Your task to perform on an android device: Go to calendar. Show me events next week Image 0: 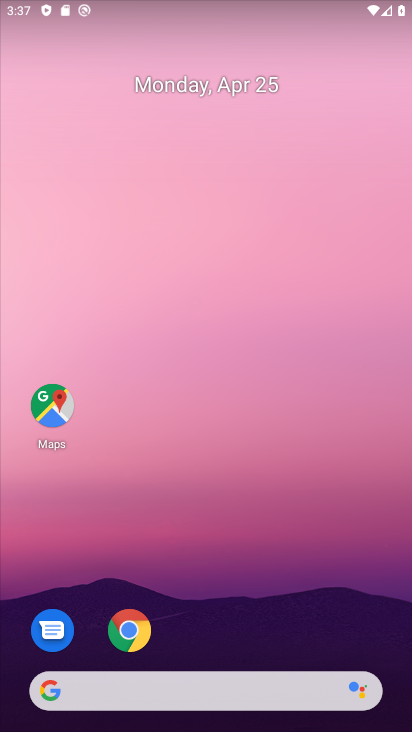
Step 0: drag from (345, 438) to (325, 91)
Your task to perform on an android device: Go to calendar. Show me events next week Image 1: 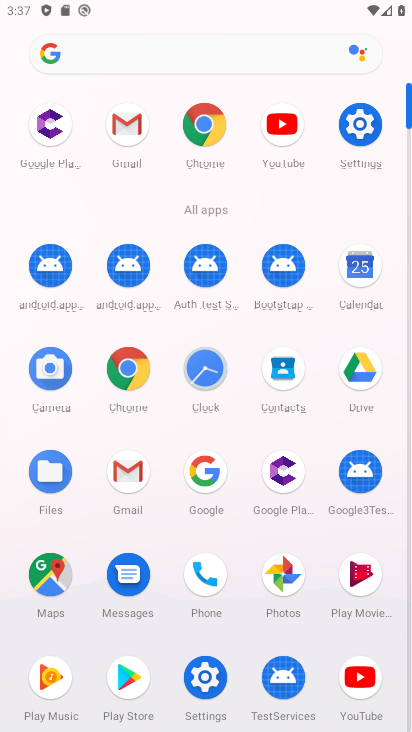
Step 1: click (356, 274)
Your task to perform on an android device: Go to calendar. Show me events next week Image 2: 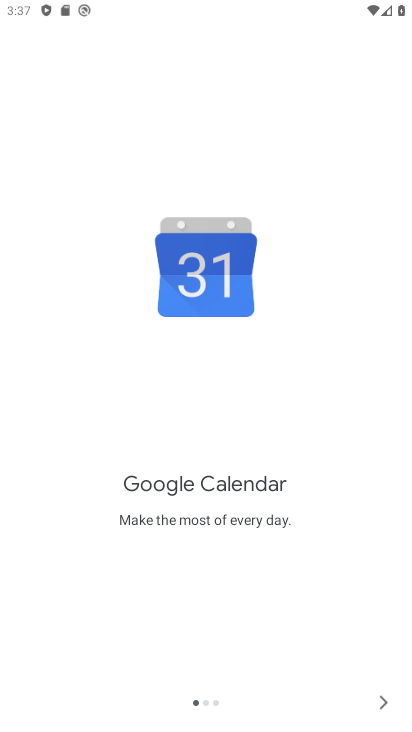
Step 2: click (381, 708)
Your task to perform on an android device: Go to calendar. Show me events next week Image 3: 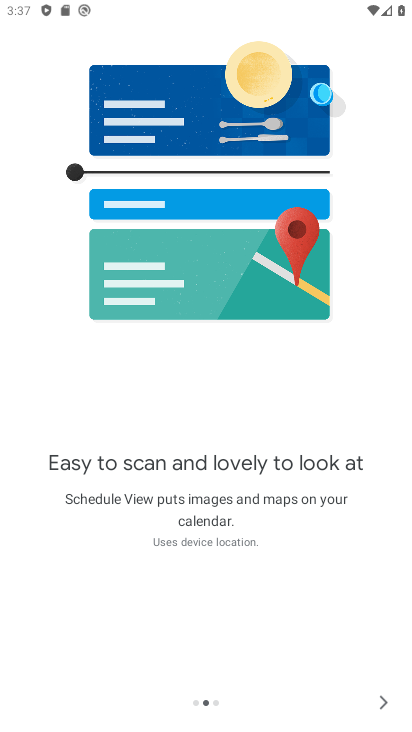
Step 3: click (374, 706)
Your task to perform on an android device: Go to calendar. Show me events next week Image 4: 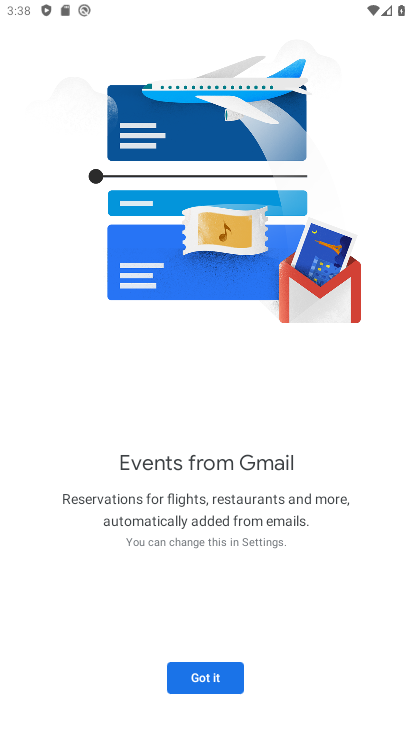
Step 4: click (209, 667)
Your task to perform on an android device: Go to calendar. Show me events next week Image 5: 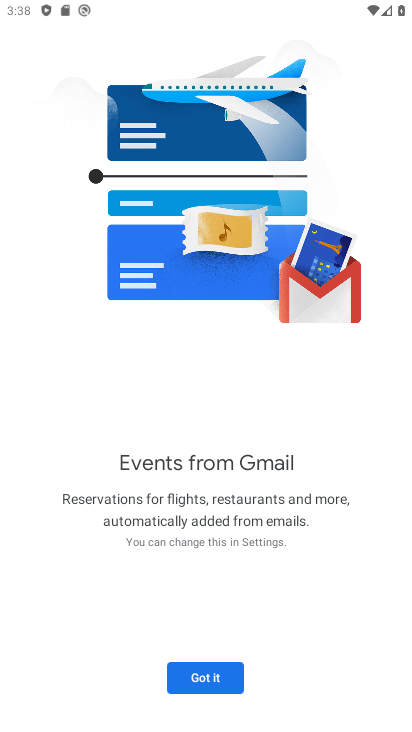
Step 5: click (218, 678)
Your task to perform on an android device: Go to calendar. Show me events next week Image 6: 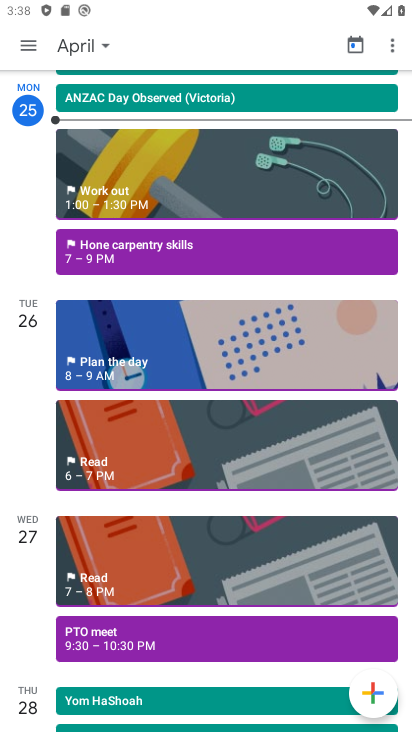
Step 6: click (84, 47)
Your task to perform on an android device: Go to calendar. Show me events next week Image 7: 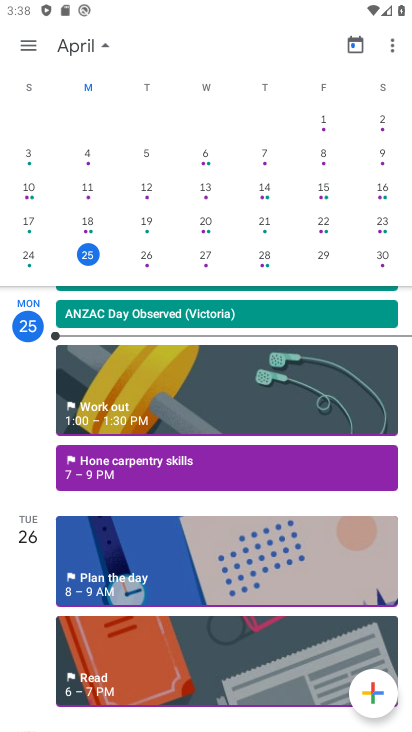
Step 7: drag from (285, 209) to (13, 215)
Your task to perform on an android device: Go to calendar. Show me events next week Image 8: 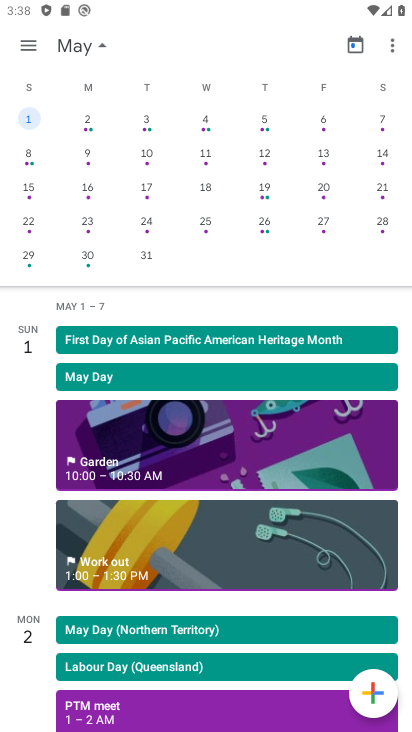
Step 8: click (268, 120)
Your task to perform on an android device: Go to calendar. Show me events next week Image 9: 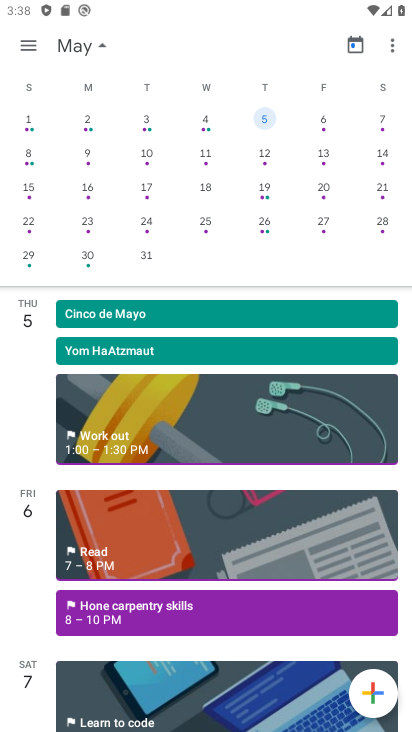
Step 9: task complete